Your task to perform on an android device: allow cookies in the chrome app Image 0: 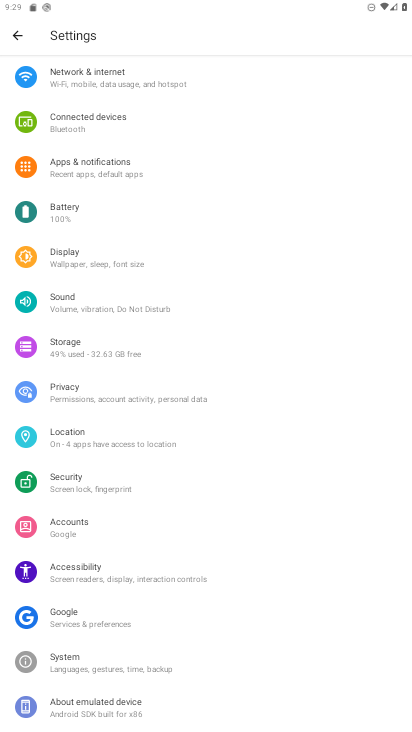
Step 0: press home button
Your task to perform on an android device: allow cookies in the chrome app Image 1: 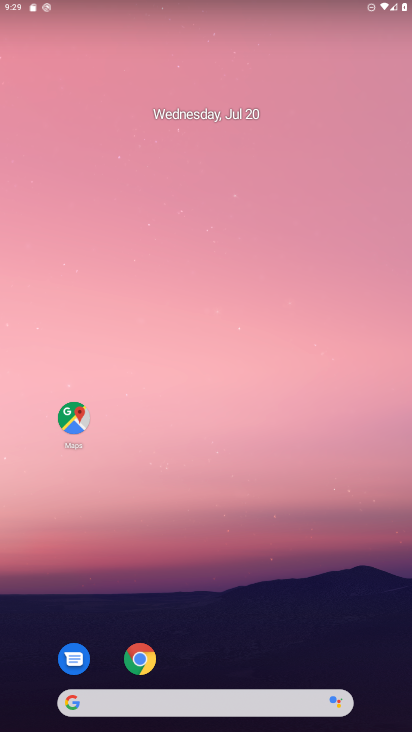
Step 1: drag from (292, 536) to (219, 27)
Your task to perform on an android device: allow cookies in the chrome app Image 2: 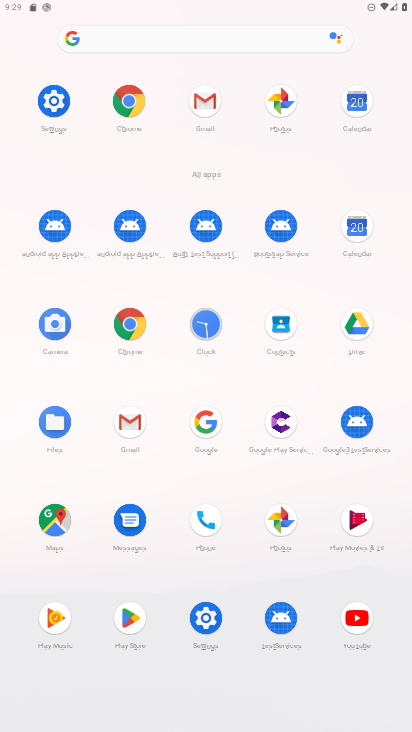
Step 2: click (129, 100)
Your task to perform on an android device: allow cookies in the chrome app Image 3: 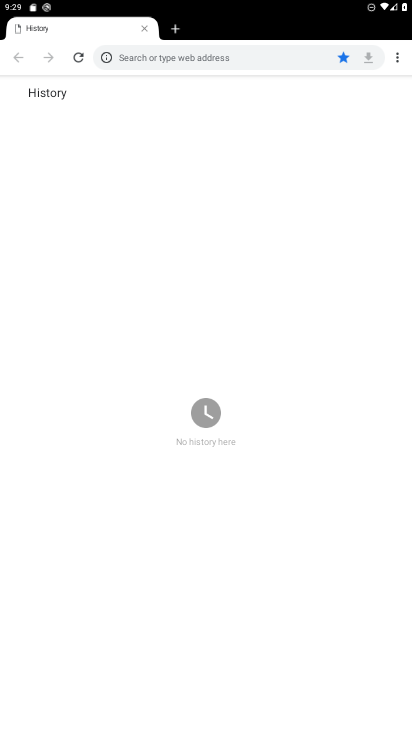
Step 3: drag from (401, 47) to (278, 178)
Your task to perform on an android device: allow cookies in the chrome app Image 4: 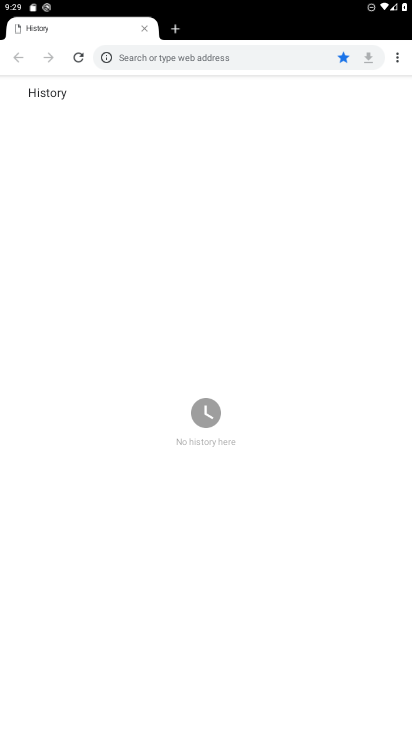
Step 4: drag from (396, 57) to (150, 213)
Your task to perform on an android device: allow cookies in the chrome app Image 5: 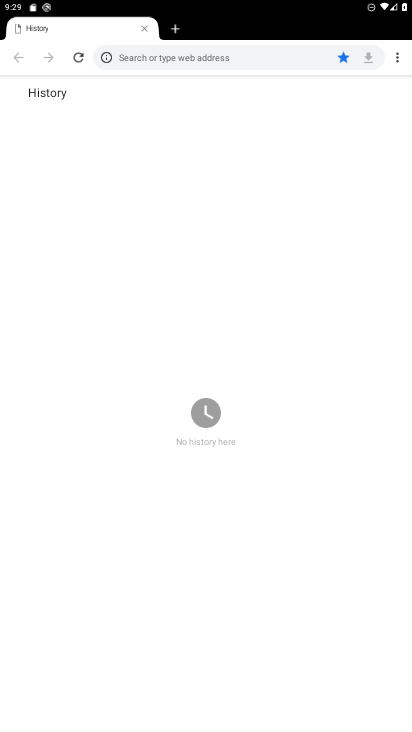
Step 5: click (150, 213)
Your task to perform on an android device: allow cookies in the chrome app Image 6: 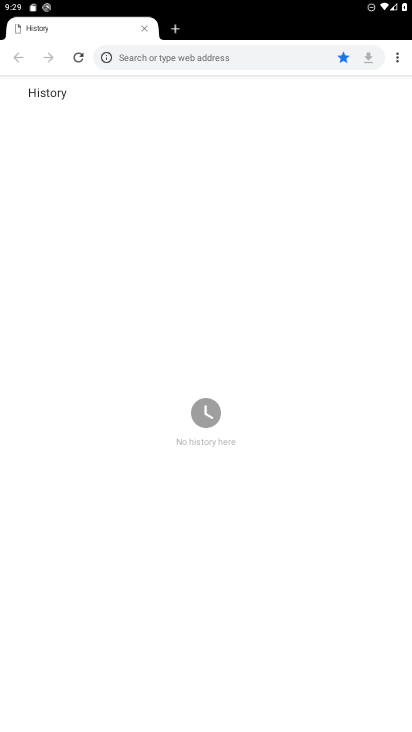
Step 6: task complete